Your task to perform on an android device: star an email in the gmail app Image 0: 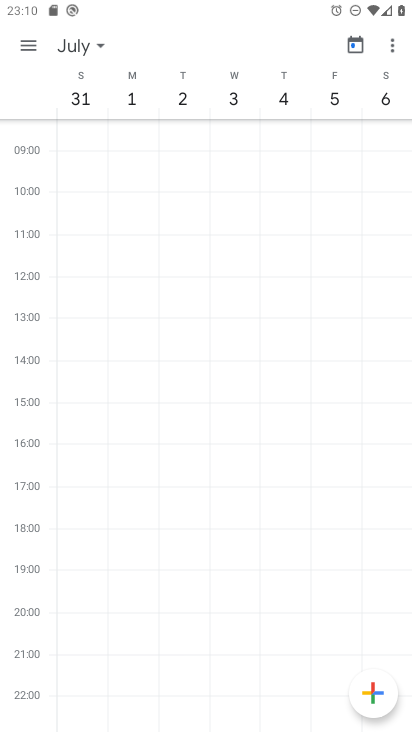
Step 0: press home button
Your task to perform on an android device: star an email in the gmail app Image 1: 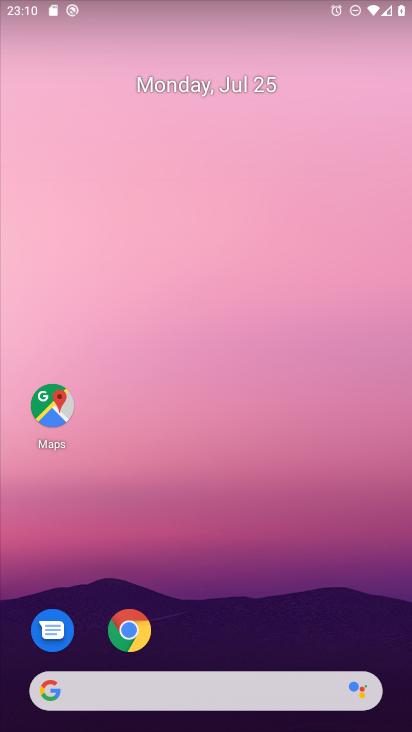
Step 1: drag from (339, 624) to (141, 30)
Your task to perform on an android device: star an email in the gmail app Image 2: 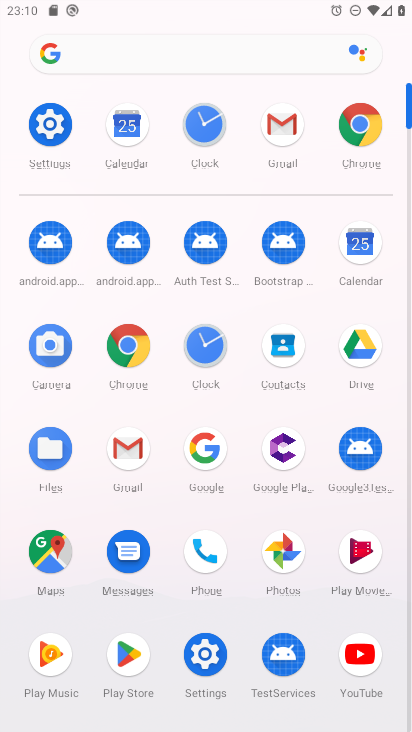
Step 2: click (280, 131)
Your task to perform on an android device: star an email in the gmail app Image 3: 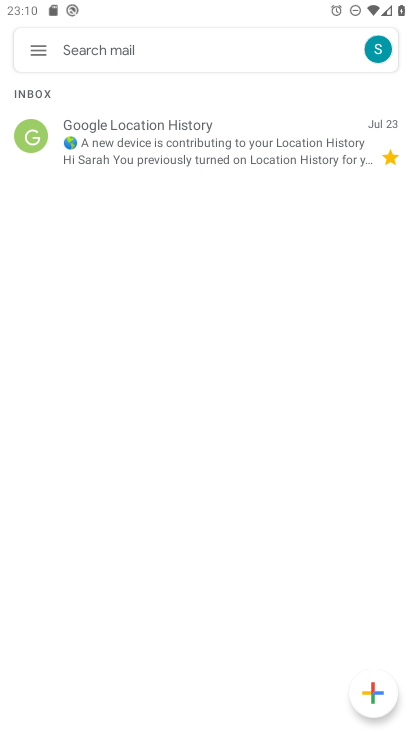
Step 3: click (41, 51)
Your task to perform on an android device: star an email in the gmail app Image 4: 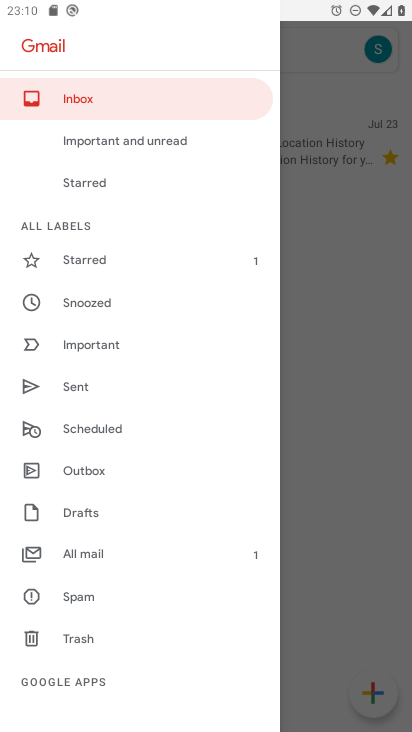
Step 4: click (89, 546)
Your task to perform on an android device: star an email in the gmail app Image 5: 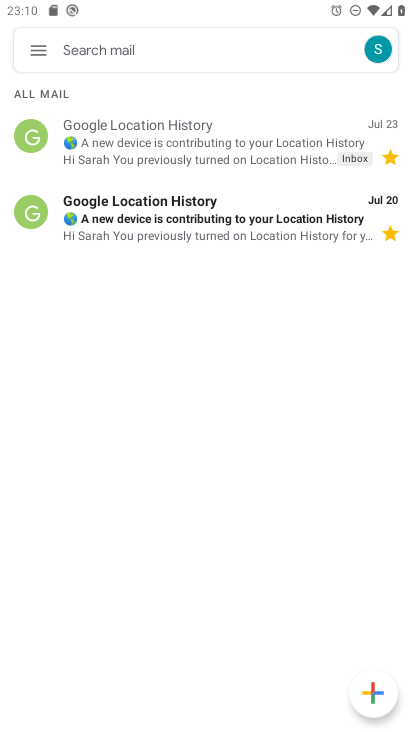
Step 5: task complete